Your task to perform on an android device: see creations saved in the google photos Image 0: 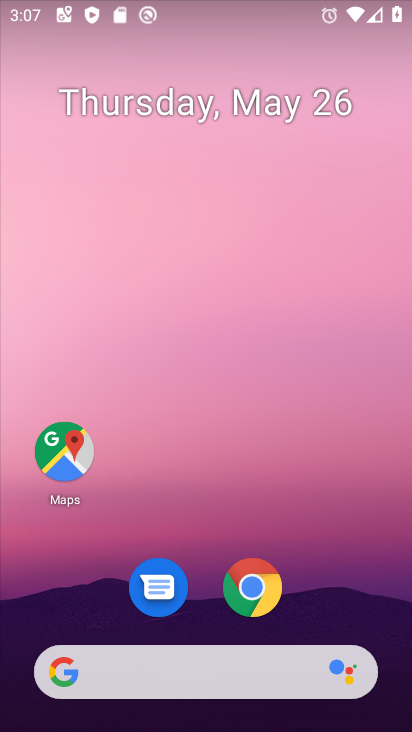
Step 0: drag from (373, 617) to (355, 312)
Your task to perform on an android device: see creations saved in the google photos Image 1: 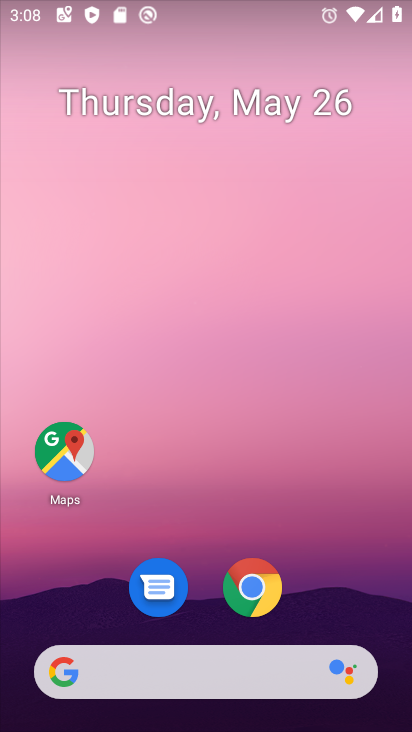
Step 1: drag from (359, 600) to (334, 172)
Your task to perform on an android device: see creations saved in the google photos Image 2: 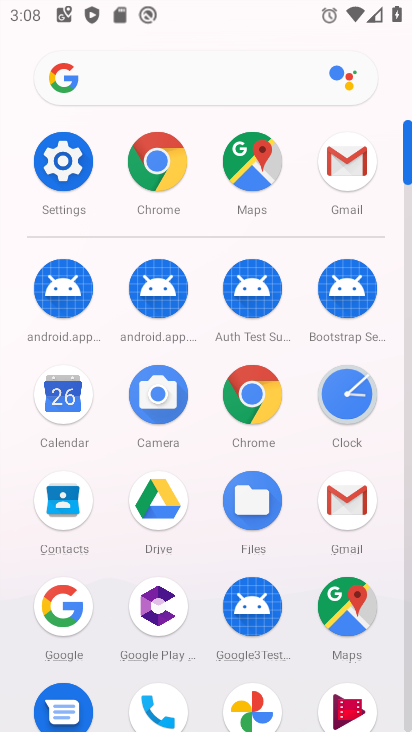
Step 2: drag from (387, 623) to (379, 335)
Your task to perform on an android device: see creations saved in the google photos Image 3: 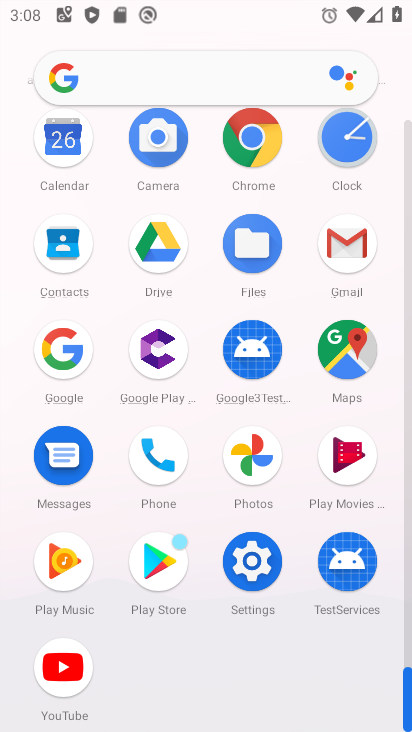
Step 3: click (258, 480)
Your task to perform on an android device: see creations saved in the google photos Image 4: 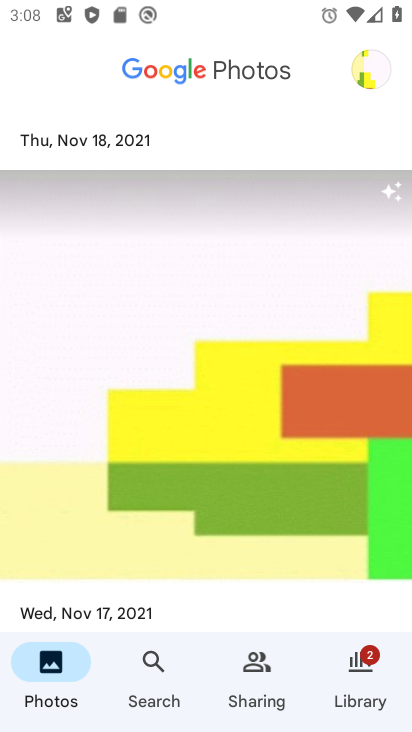
Step 4: click (152, 664)
Your task to perform on an android device: see creations saved in the google photos Image 5: 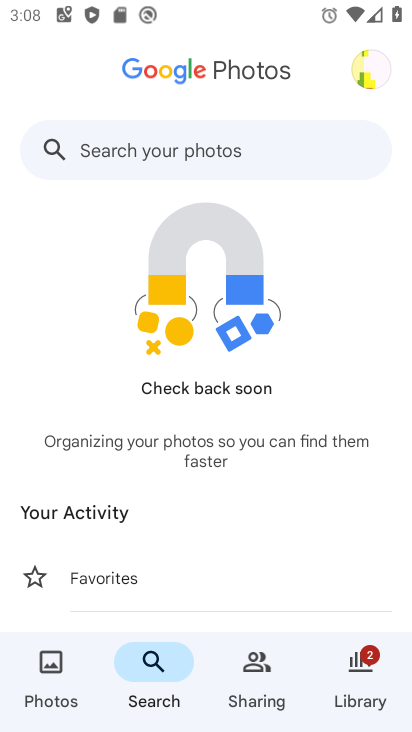
Step 5: drag from (250, 553) to (266, 462)
Your task to perform on an android device: see creations saved in the google photos Image 6: 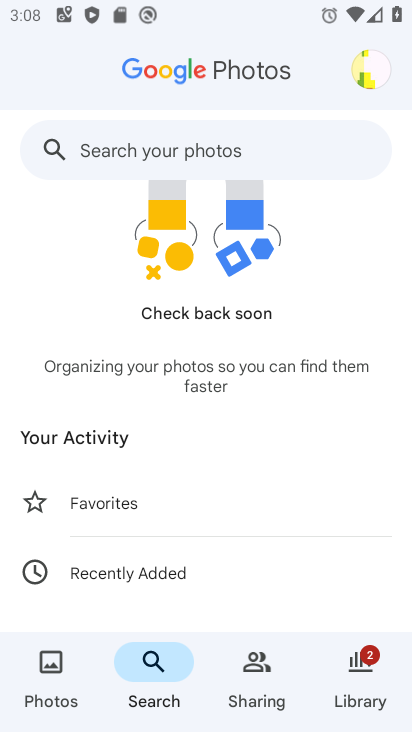
Step 6: drag from (292, 537) to (297, 431)
Your task to perform on an android device: see creations saved in the google photos Image 7: 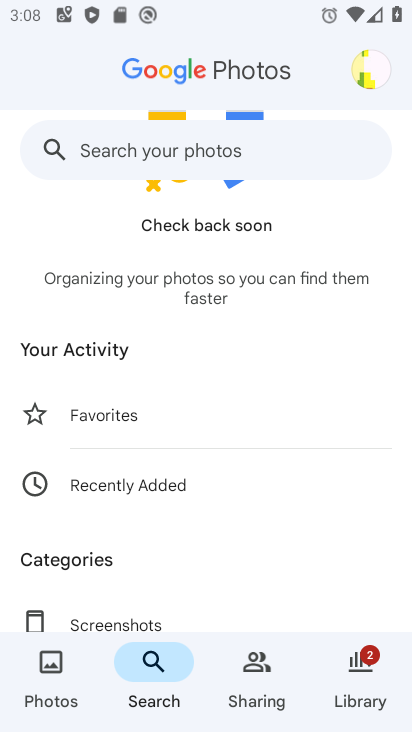
Step 7: drag from (275, 502) to (278, 418)
Your task to perform on an android device: see creations saved in the google photos Image 8: 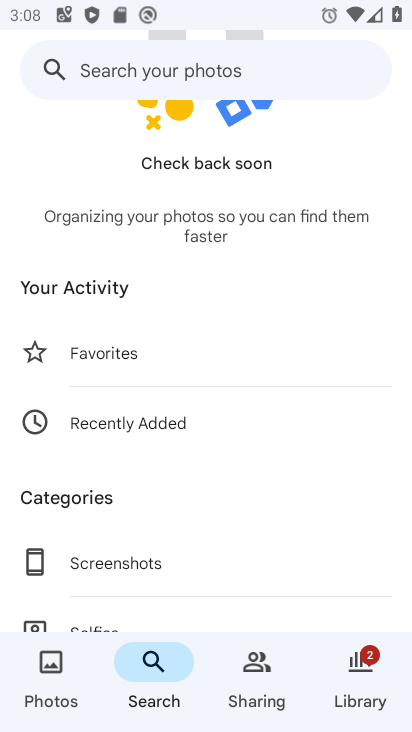
Step 8: drag from (261, 486) to (261, 383)
Your task to perform on an android device: see creations saved in the google photos Image 9: 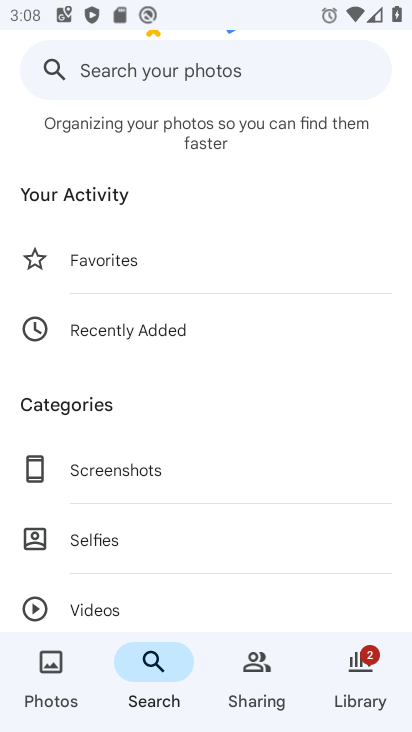
Step 9: drag from (246, 470) to (246, 384)
Your task to perform on an android device: see creations saved in the google photos Image 10: 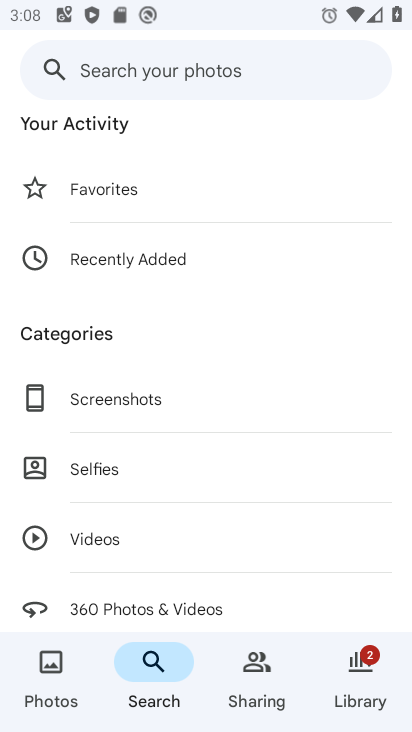
Step 10: drag from (237, 449) to (239, 356)
Your task to perform on an android device: see creations saved in the google photos Image 11: 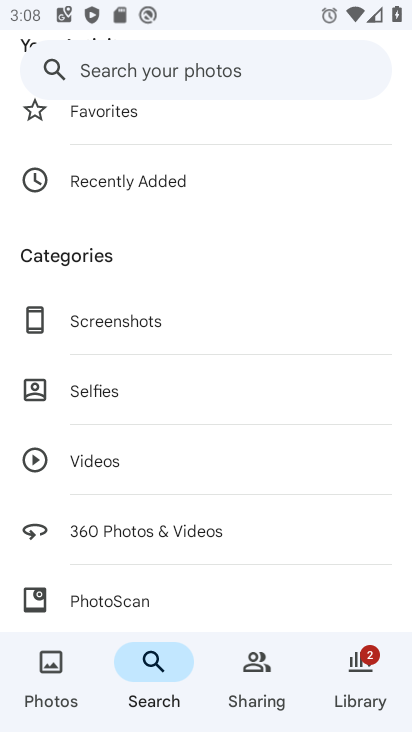
Step 11: drag from (247, 432) to (247, 357)
Your task to perform on an android device: see creations saved in the google photos Image 12: 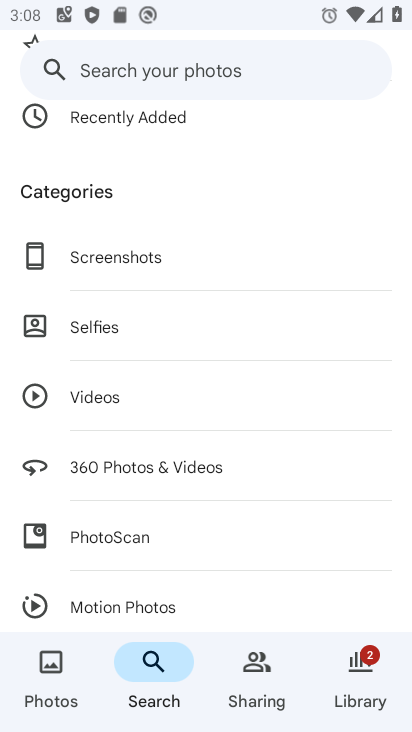
Step 12: drag from (264, 477) to (267, 383)
Your task to perform on an android device: see creations saved in the google photos Image 13: 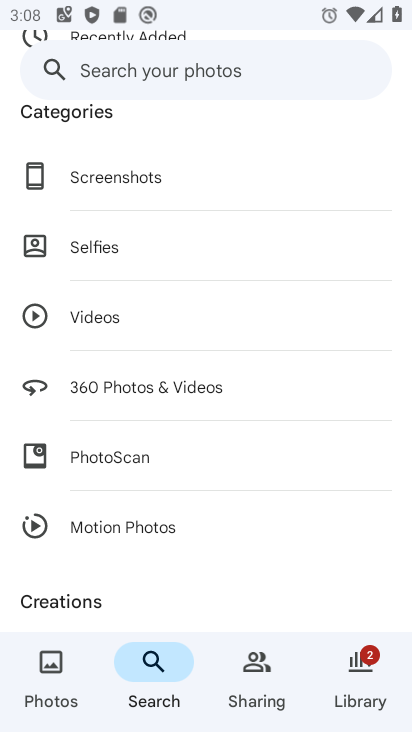
Step 13: drag from (256, 501) to (268, 360)
Your task to perform on an android device: see creations saved in the google photos Image 14: 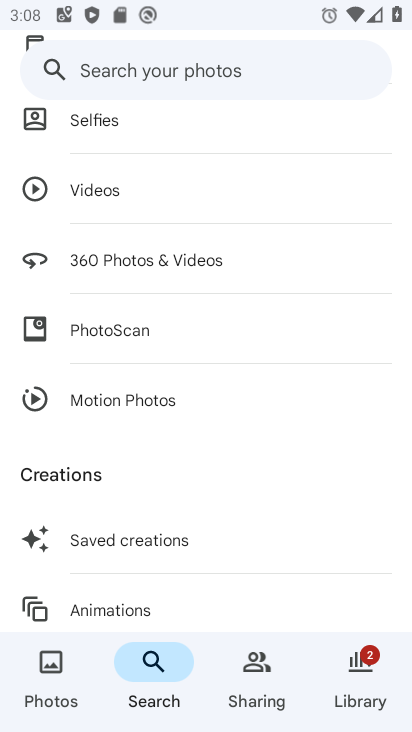
Step 14: drag from (259, 498) to (272, 258)
Your task to perform on an android device: see creations saved in the google photos Image 15: 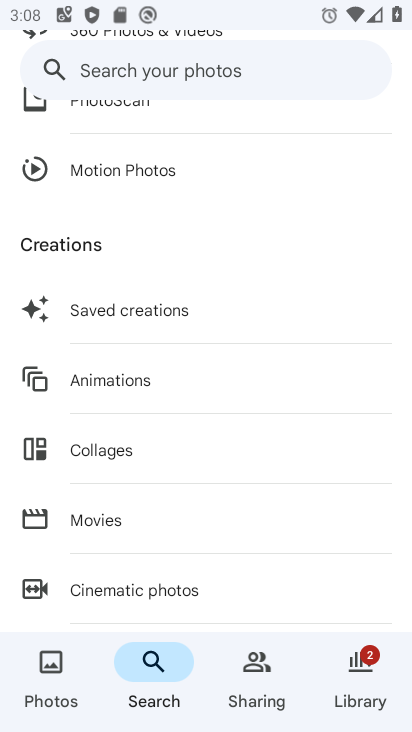
Step 15: click (205, 319)
Your task to perform on an android device: see creations saved in the google photos Image 16: 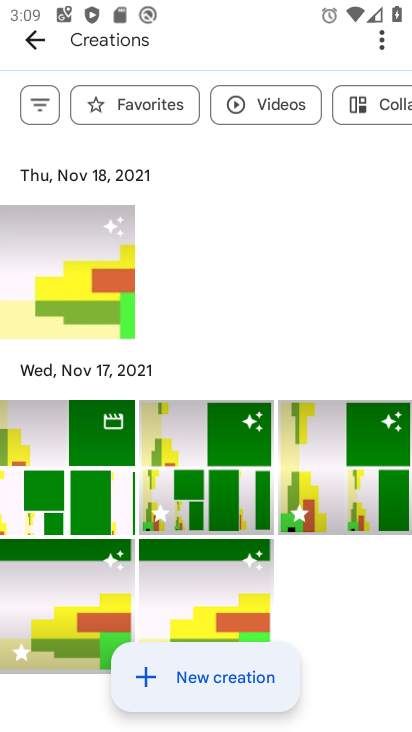
Step 16: task complete